Your task to perform on an android device: Open Google Image 0: 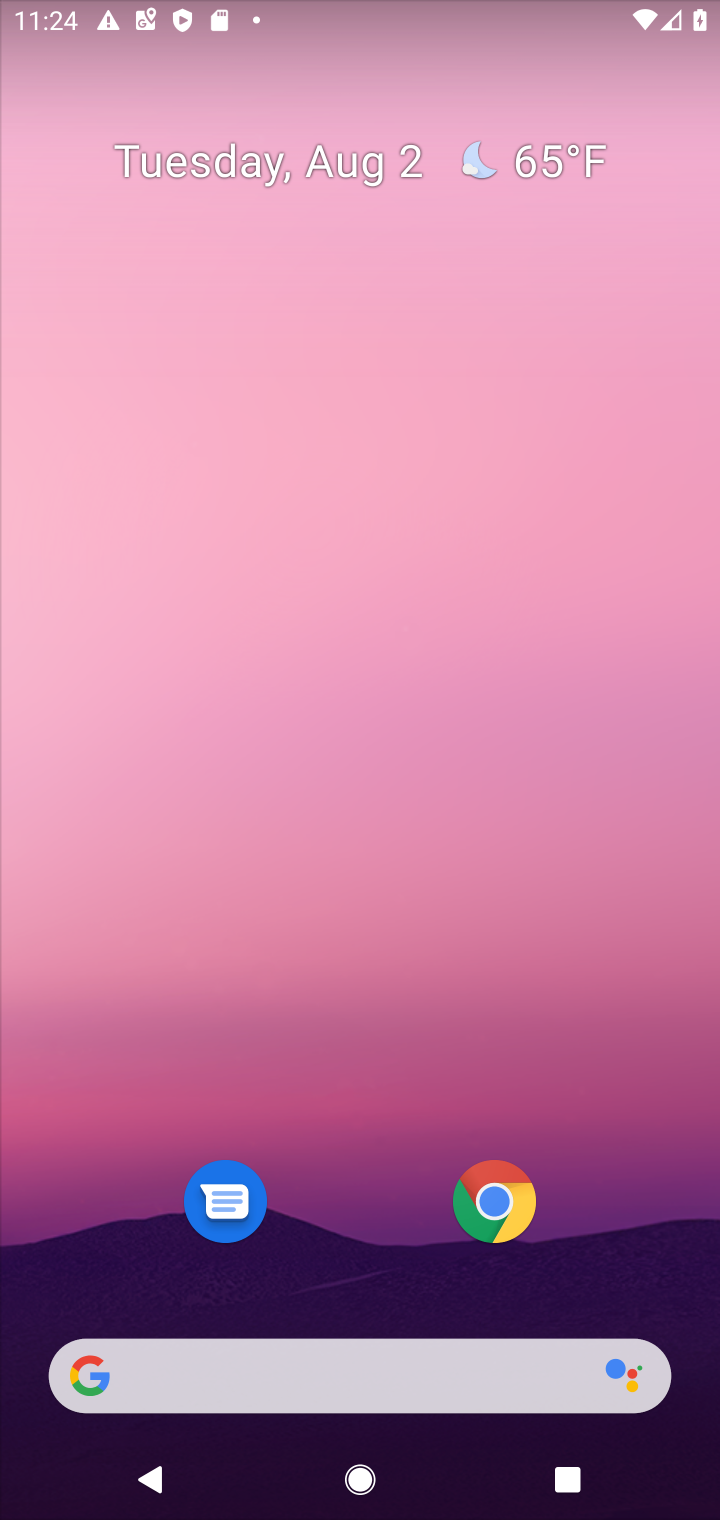
Step 0: drag from (378, 1327) to (352, 386)
Your task to perform on an android device: Open Google Image 1: 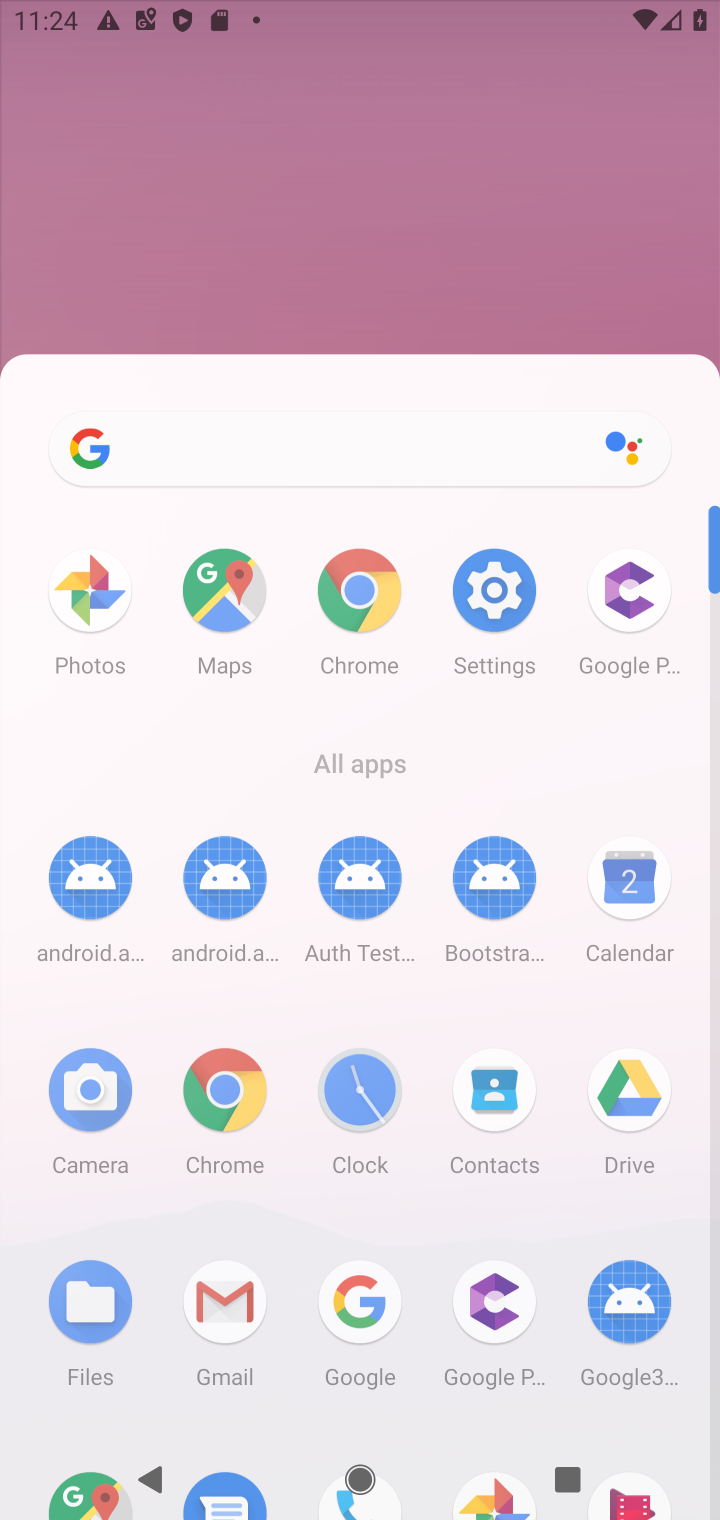
Step 1: click (362, 989)
Your task to perform on an android device: Open Google Image 2: 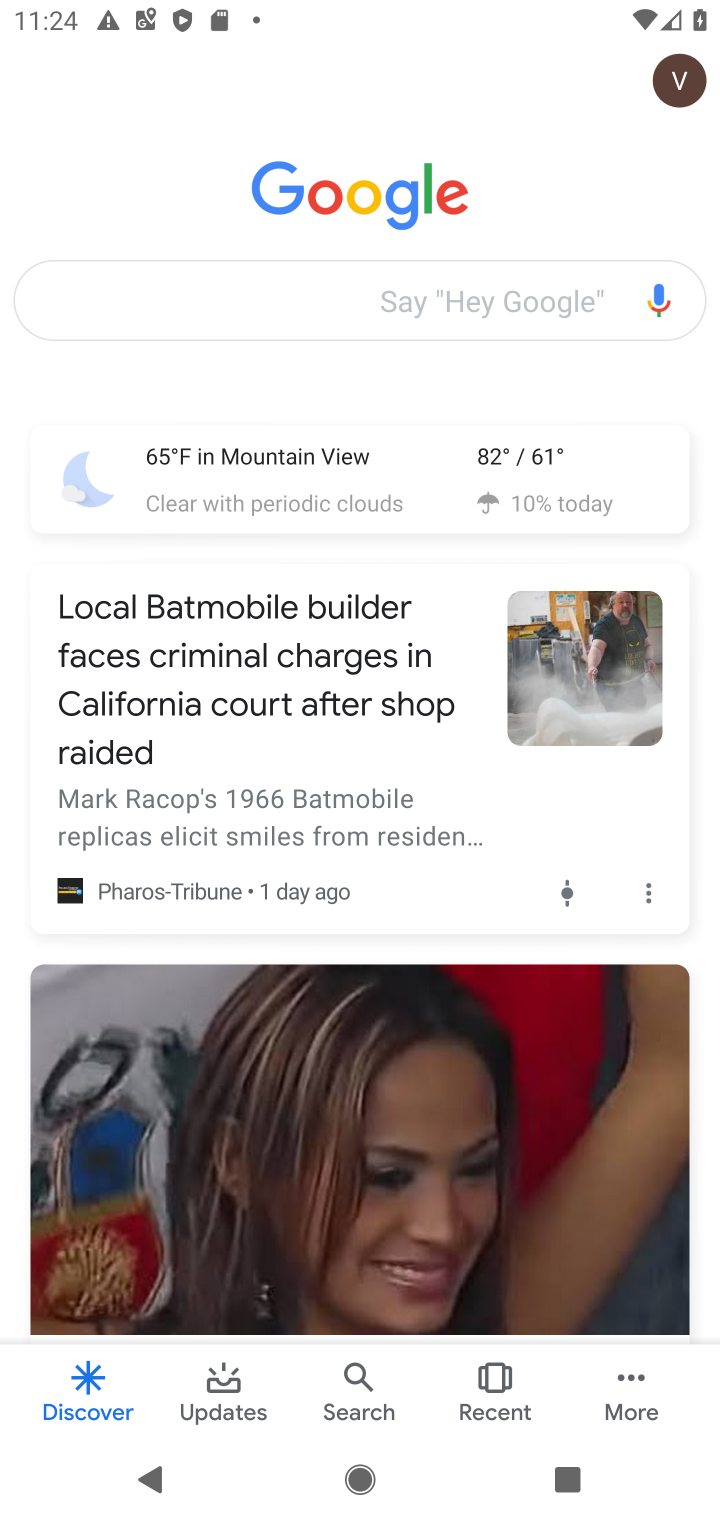
Step 2: task complete